Your task to perform on an android device: open wifi settings Image 0: 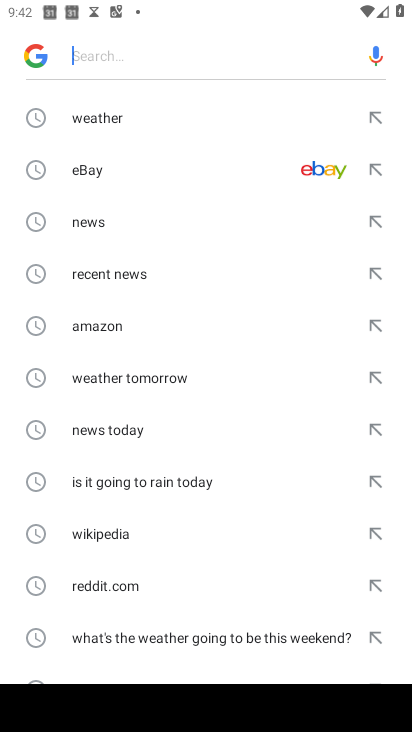
Step 0: press back button
Your task to perform on an android device: open wifi settings Image 1: 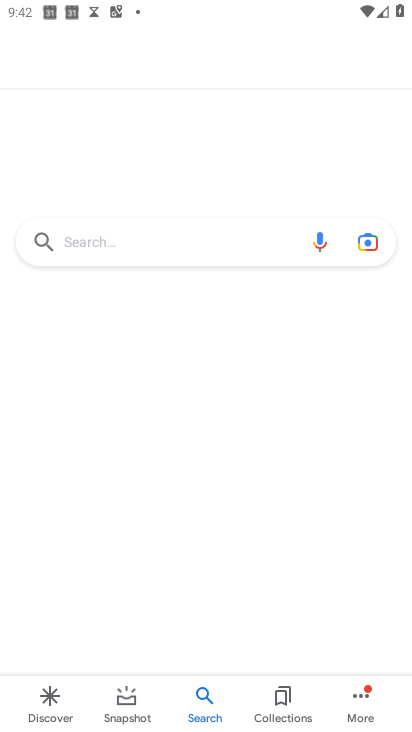
Step 1: press back button
Your task to perform on an android device: open wifi settings Image 2: 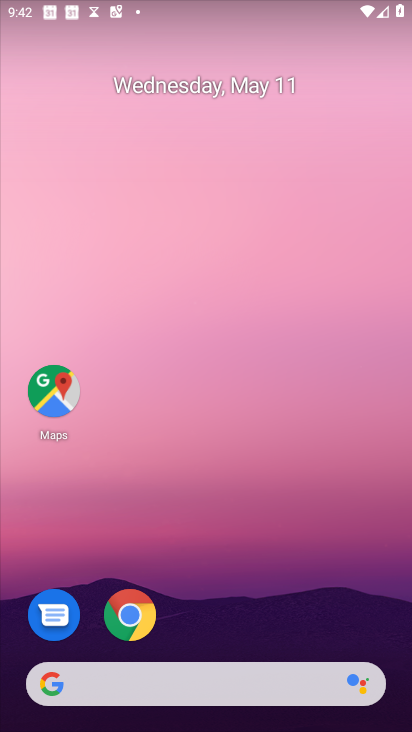
Step 2: drag from (215, 7) to (94, 435)
Your task to perform on an android device: open wifi settings Image 3: 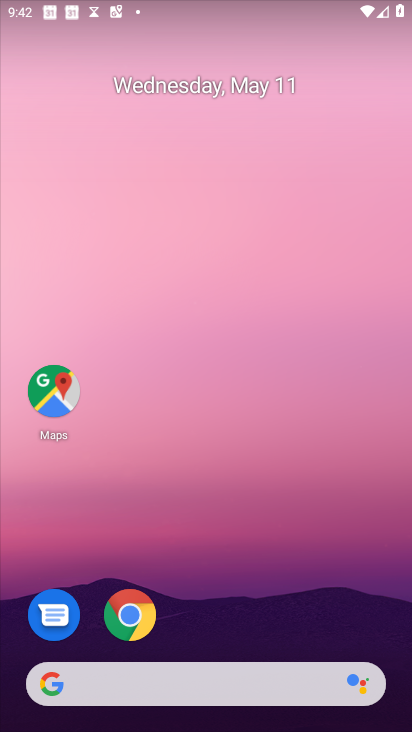
Step 3: drag from (185, 10) to (135, 400)
Your task to perform on an android device: open wifi settings Image 4: 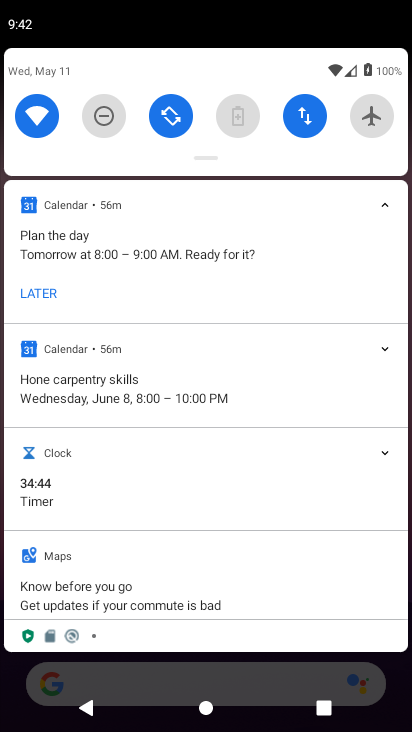
Step 4: click (32, 111)
Your task to perform on an android device: open wifi settings Image 5: 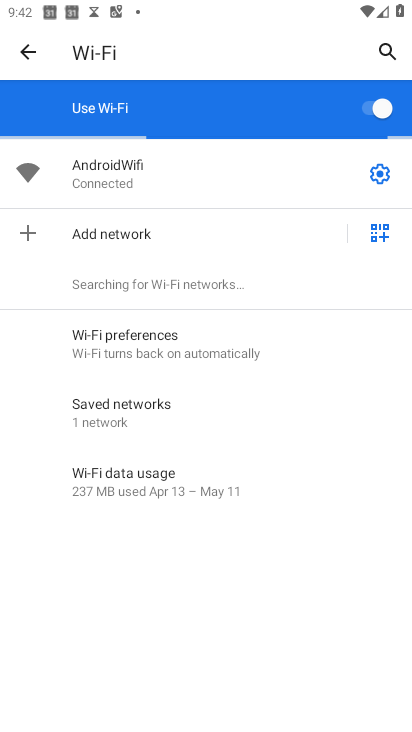
Step 5: click (386, 174)
Your task to perform on an android device: open wifi settings Image 6: 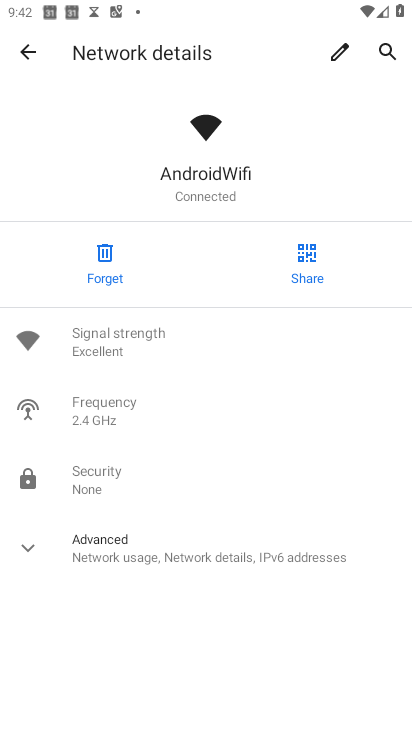
Step 6: task complete